Your task to perform on an android device: Open Google Chrome and open the bookmarks view Image 0: 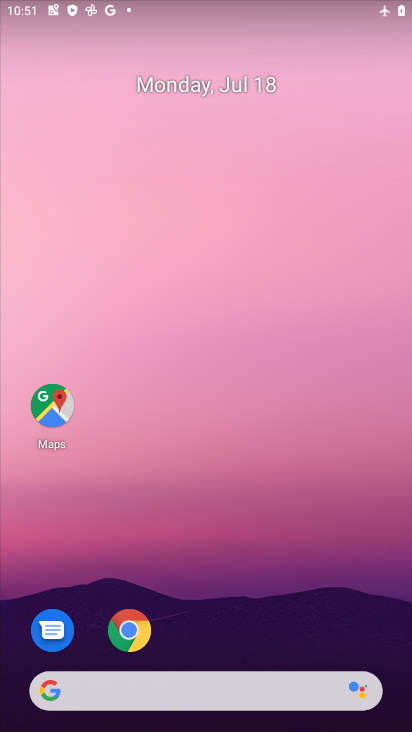
Step 0: drag from (363, 606) to (181, 37)
Your task to perform on an android device: Open Google Chrome and open the bookmarks view Image 1: 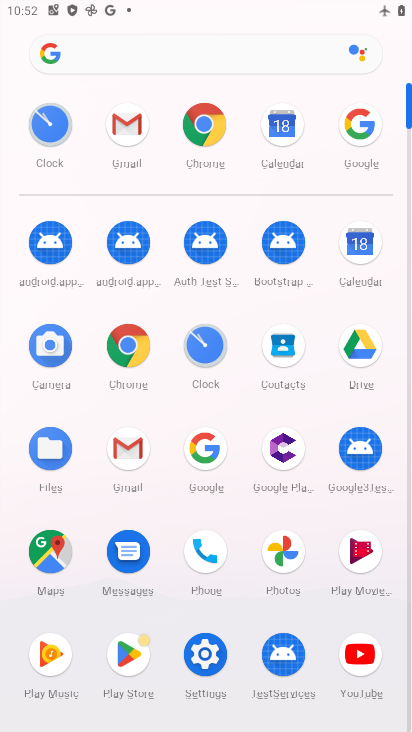
Step 1: click (132, 349)
Your task to perform on an android device: Open Google Chrome and open the bookmarks view Image 2: 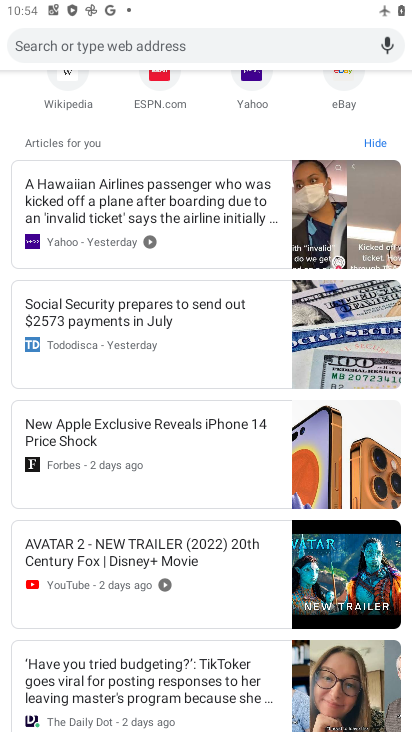
Step 2: task complete